Your task to perform on an android device: Check the weather Image 0: 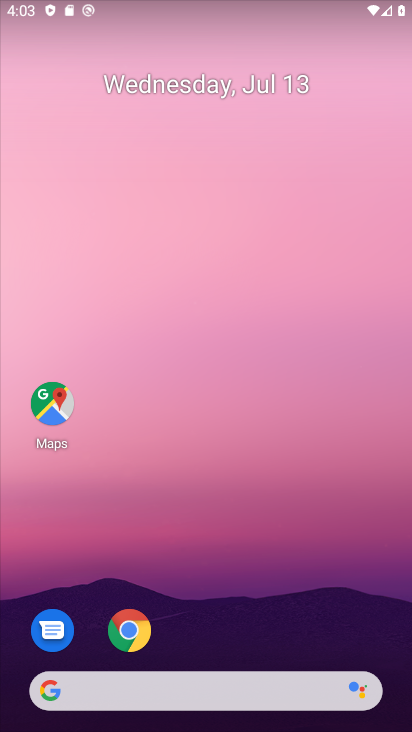
Step 0: press home button
Your task to perform on an android device: Check the weather Image 1: 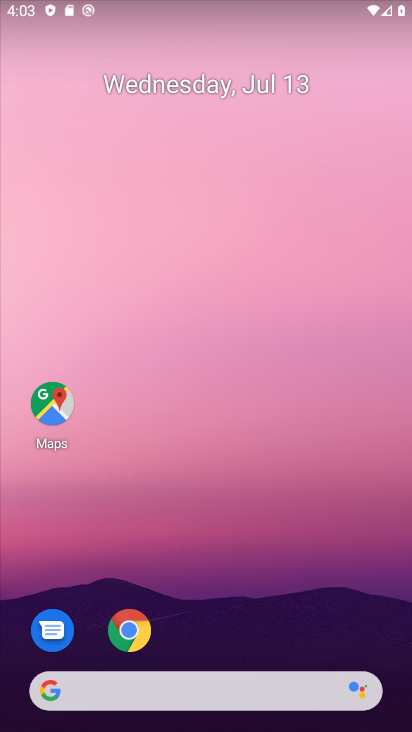
Step 1: click (53, 686)
Your task to perform on an android device: Check the weather Image 2: 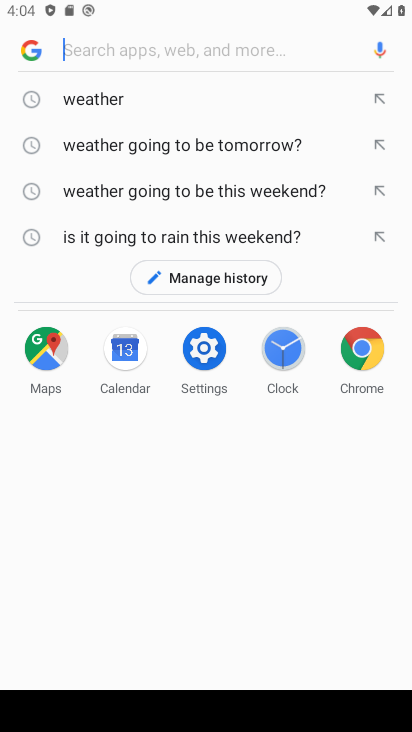
Step 2: click (110, 100)
Your task to perform on an android device: Check the weather Image 3: 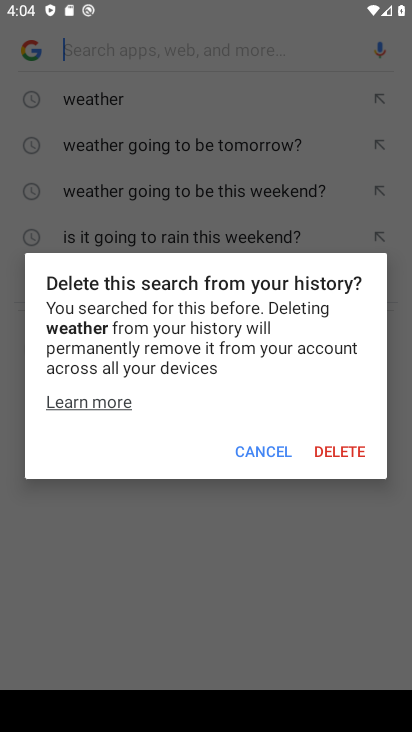
Step 3: click (282, 451)
Your task to perform on an android device: Check the weather Image 4: 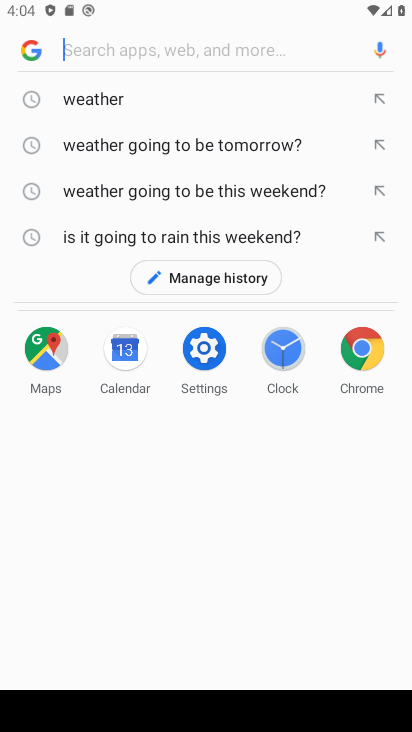
Step 4: click (103, 97)
Your task to perform on an android device: Check the weather Image 5: 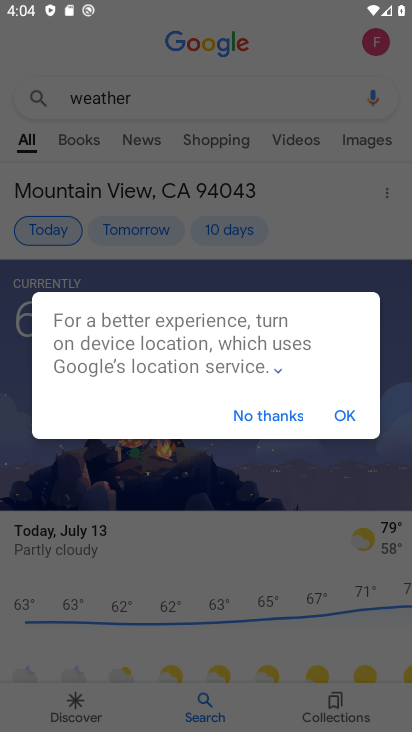
Step 5: click (276, 419)
Your task to perform on an android device: Check the weather Image 6: 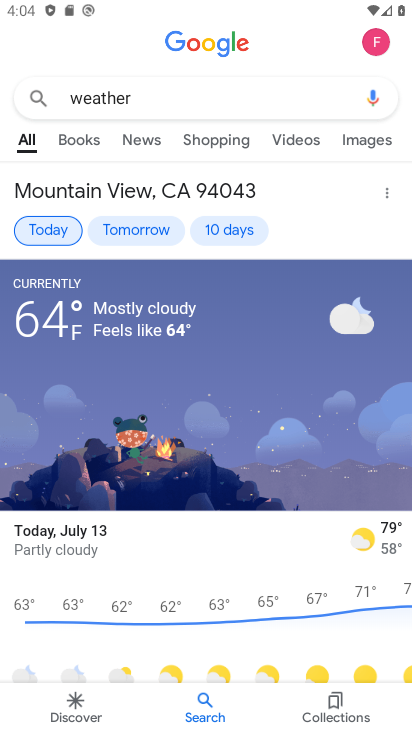
Step 6: task complete